Your task to perform on an android device: open sync settings in chrome Image 0: 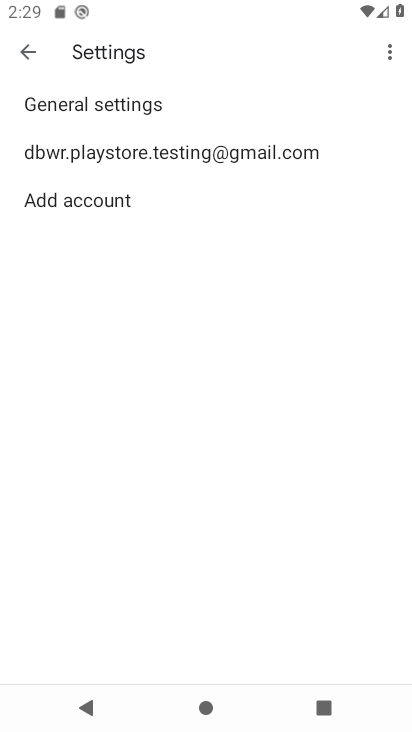
Step 0: click (52, 90)
Your task to perform on an android device: open sync settings in chrome Image 1: 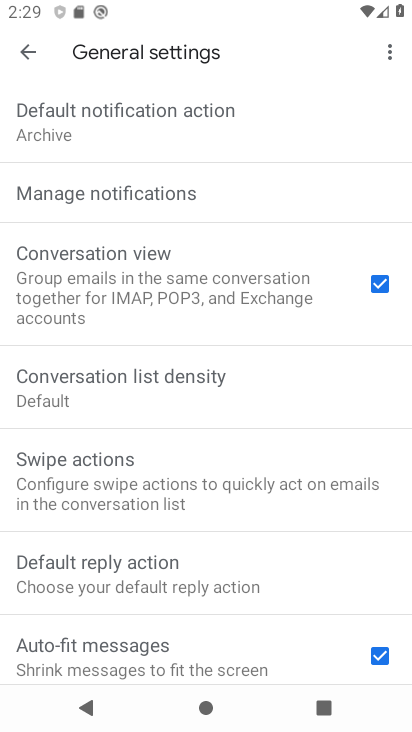
Step 1: task complete